Your task to perform on an android device: refresh tabs in the chrome app Image 0: 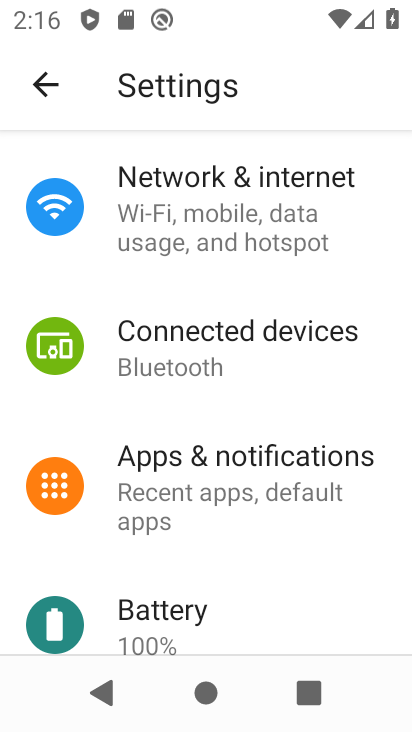
Step 0: press back button
Your task to perform on an android device: refresh tabs in the chrome app Image 1: 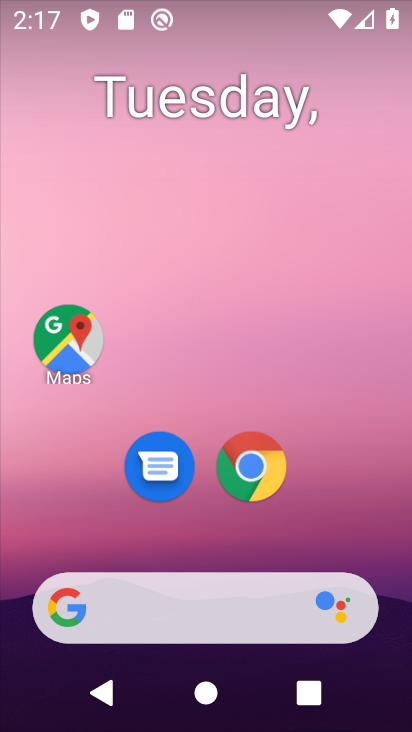
Step 1: click (256, 465)
Your task to perform on an android device: refresh tabs in the chrome app Image 2: 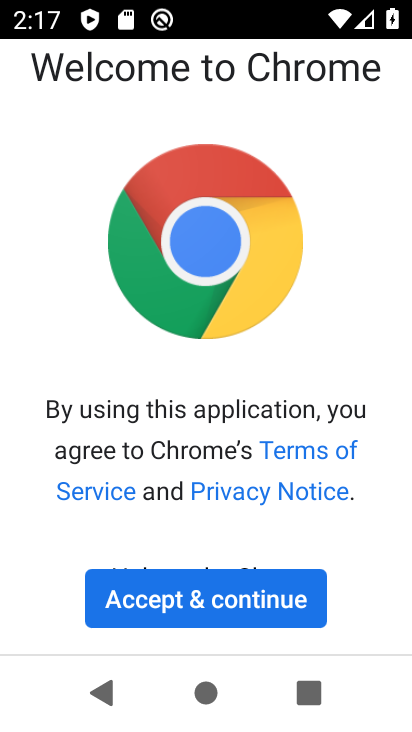
Step 2: click (188, 593)
Your task to perform on an android device: refresh tabs in the chrome app Image 3: 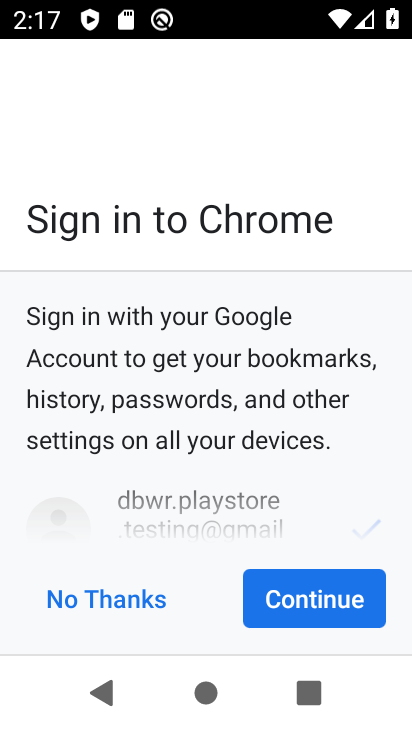
Step 3: click (321, 600)
Your task to perform on an android device: refresh tabs in the chrome app Image 4: 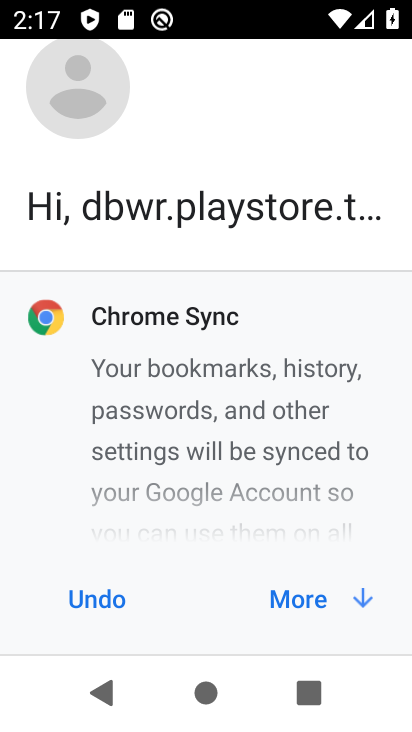
Step 4: click (321, 600)
Your task to perform on an android device: refresh tabs in the chrome app Image 5: 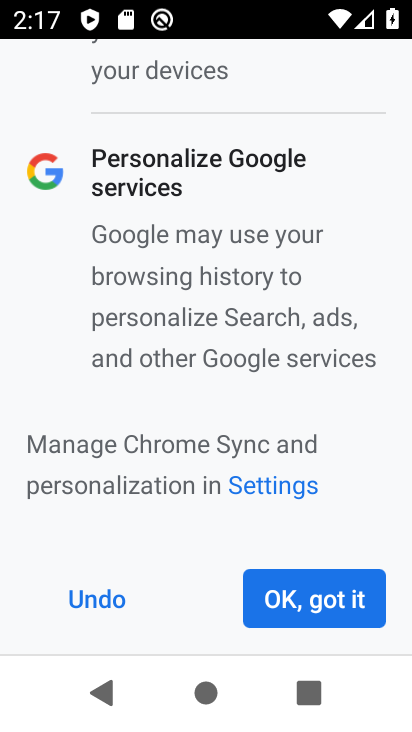
Step 5: click (321, 600)
Your task to perform on an android device: refresh tabs in the chrome app Image 6: 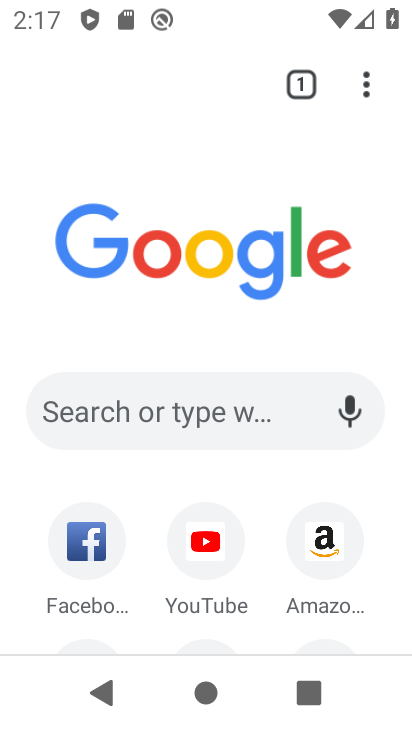
Step 6: click (367, 88)
Your task to perform on an android device: refresh tabs in the chrome app Image 7: 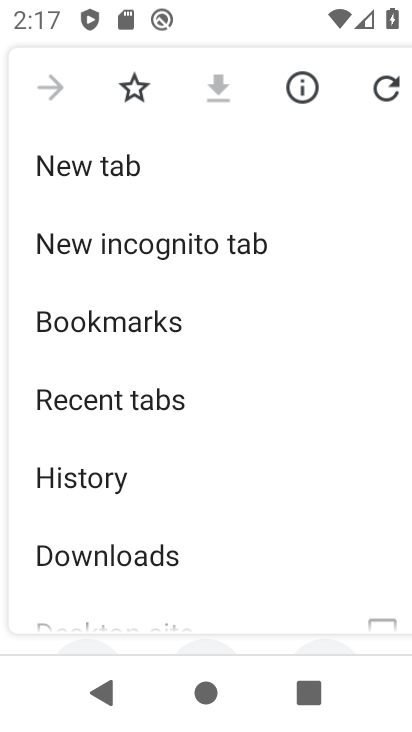
Step 7: click (385, 92)
Your task to perform on an android device: refresh tabs in the chrome app Image 8: 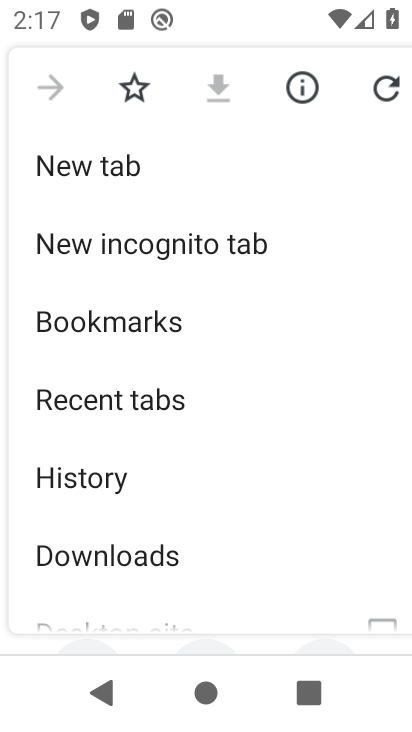
Step 8: click (384, 95)
Your task to perform on an android device: refresh tabs in the chrome app Image 9: 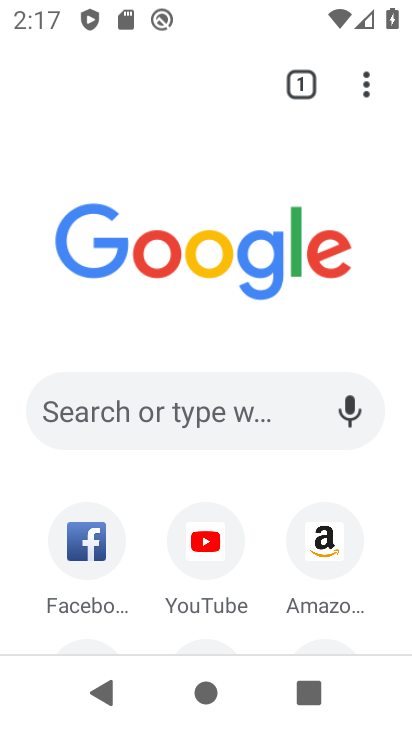
Step 9: task complete